Your task to perform on an android device: add a contact Image 0: 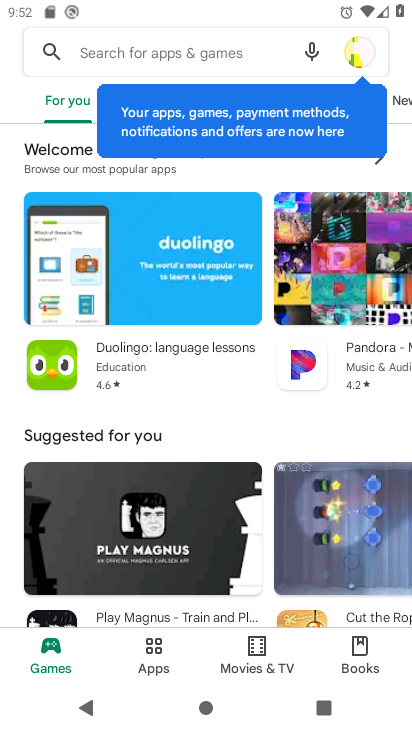
Step 0: press home button
Your task to perform on an android device: add a contact Image 1: 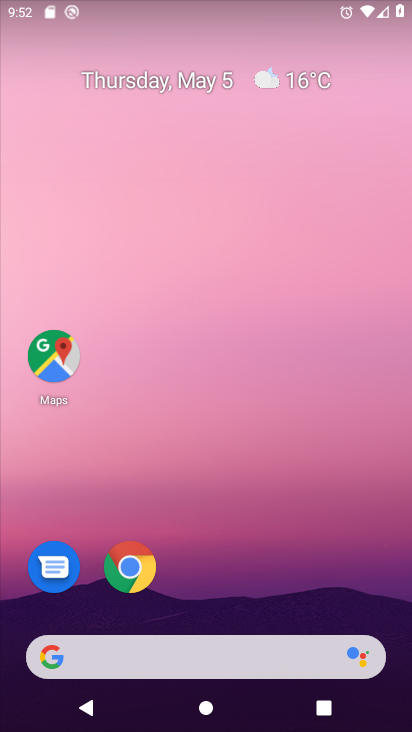
Step 1: drag from (262, 548) to (214, 62)
Your task to perform on an android device: add a contact Image 2: 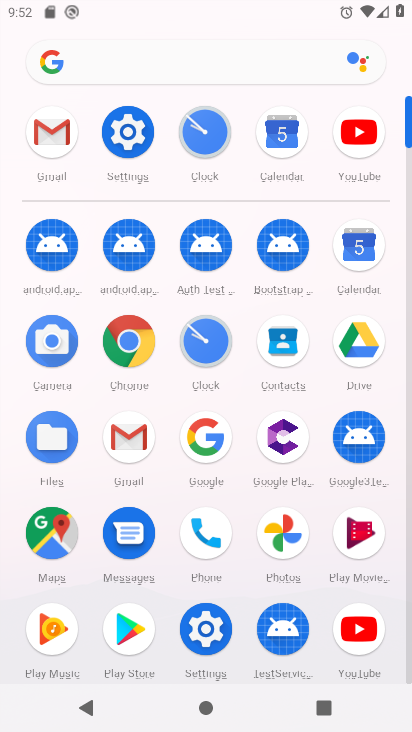
Step 2: click (276, 334)
Your task to perform on an android device: add a contact Image 3: 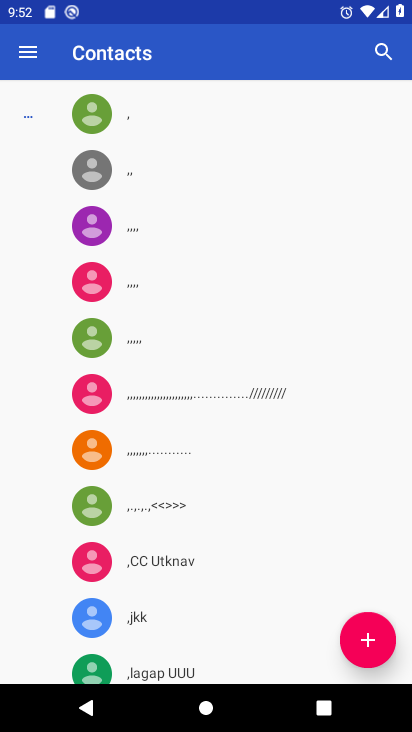
Step 3: click (370, 637)
Your task to perform on an android device: add a contact Image 4: 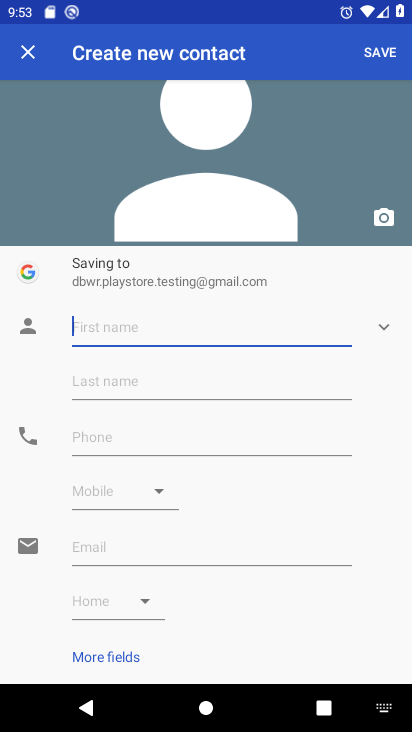
Step 4: type "Abha"
Your task to perform on an android device: add a contact Image 5: 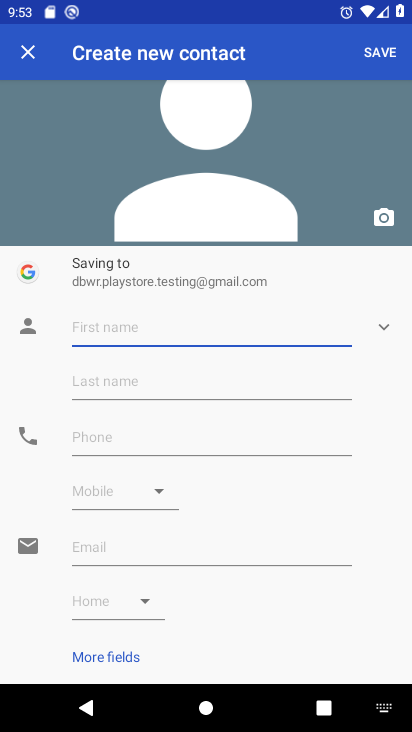
Step 5: click (234, 434)
Your task to perform on an android device: add a contact Image 6: 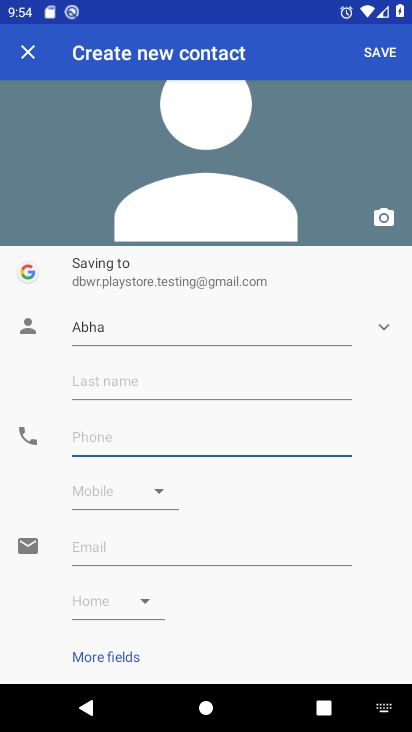
Step 6: type "9988776655"
Your task to perform on an android device: add a contact Image 7: 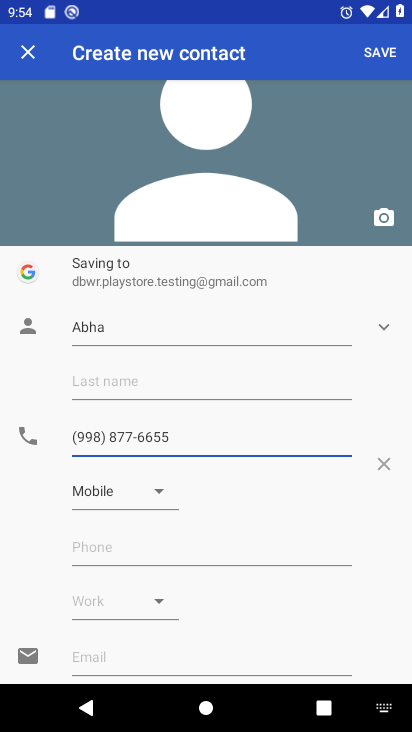
Step 7: click (386, 42)
Your task to perform on an android device: add a contact Image 8: 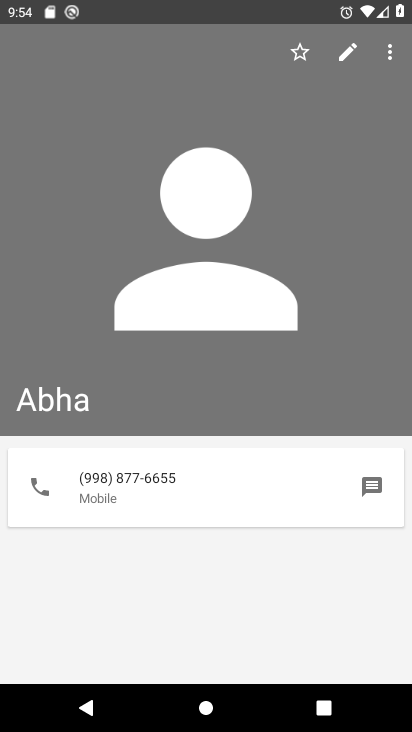
Step 8: task complete